Your task to perform on an android device: open a bookmark in the chrome app Image 0: 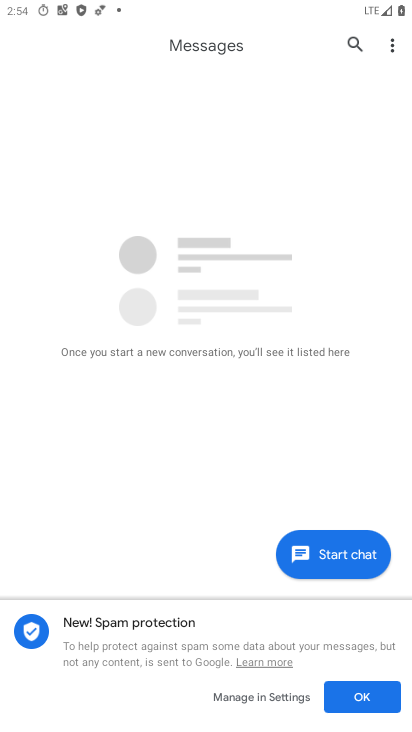
Step 0: press home button
Your task to perform on an android device: open a bookmark in the chrome app Image 1: 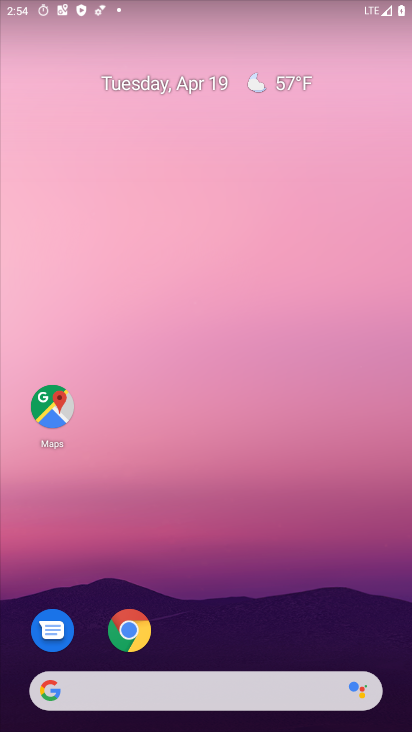
Step 1: click (138, 627)
Your task to perform on an android device: open a bookmark in the chrome app Image 2: 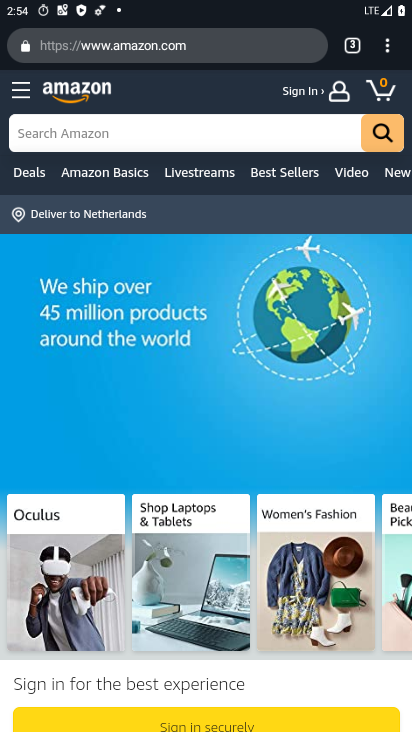
Step 2: click (387, 47)
Your task to perform on an android device: open a bookmark in the chrome app Image 3: 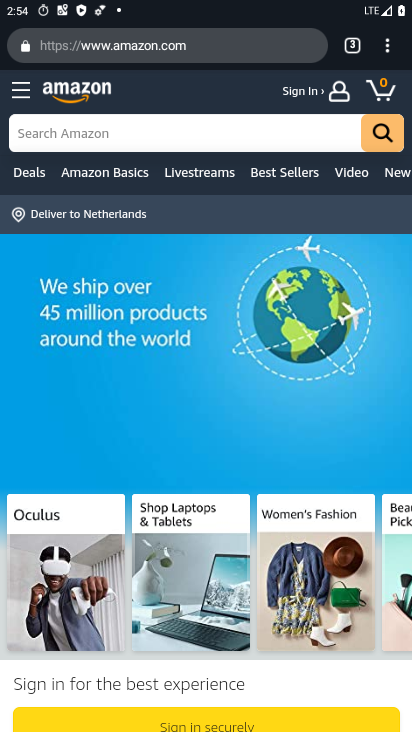
Step 3: click (387, 47)
Your task to perform on an android device: open a bookmark in the chrome app Image 4: 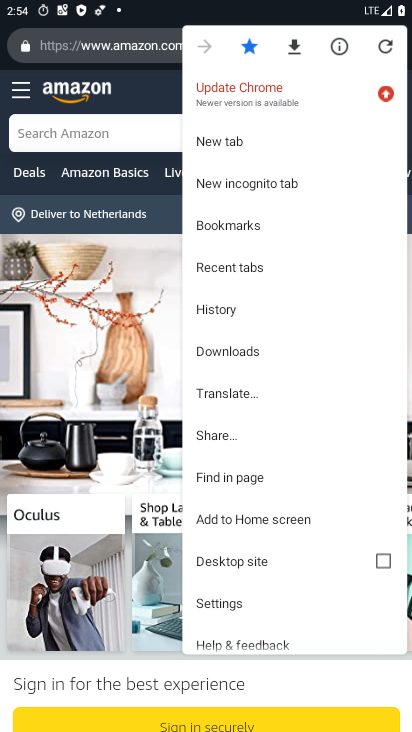
Step 4: click (249, 222)
Your task to perform on an android device: open a bookmark in the chrome app Image 5: 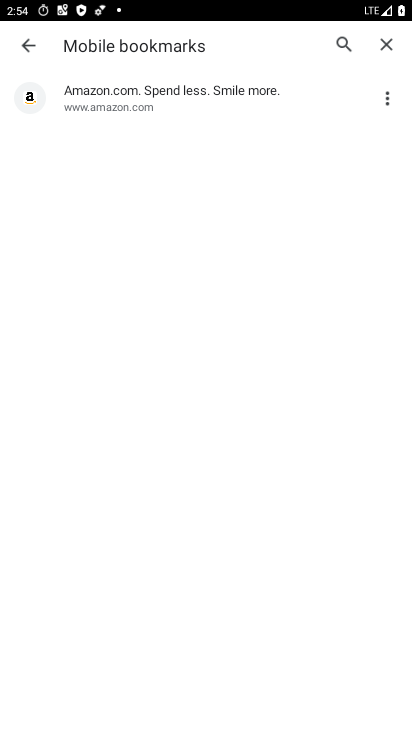
Step 5: click (120, 93)
Your task to perform on an android device: open a bookmark in the chrome app Image 6: 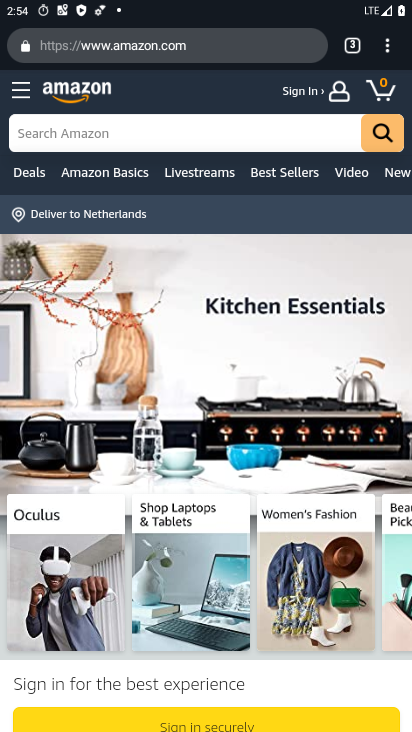
Step 6: task complete